Your task to perform on an android device: Check the weather Image 0: 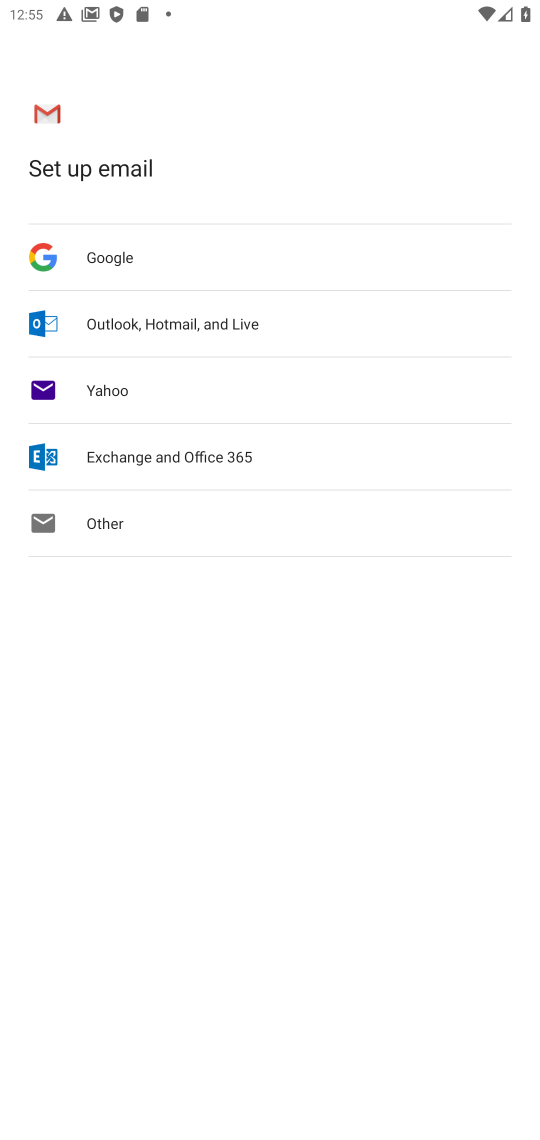
Step 0: press home button
Your task to perform on an android device: Check the weather Image 1: 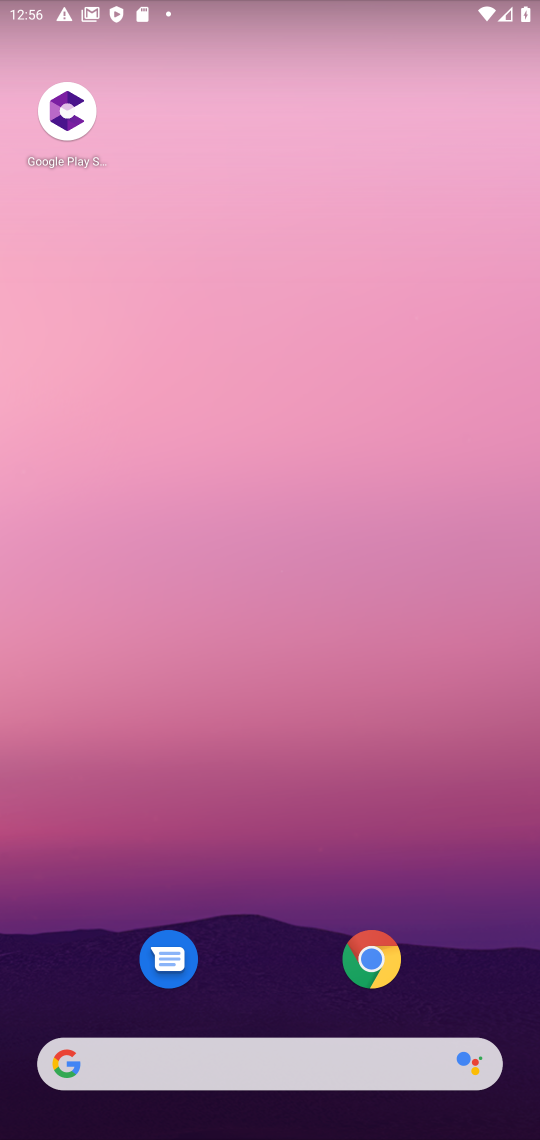
Step 1: click (220, 1073)
Your task to perform on an android device: Check the weather Image 2: 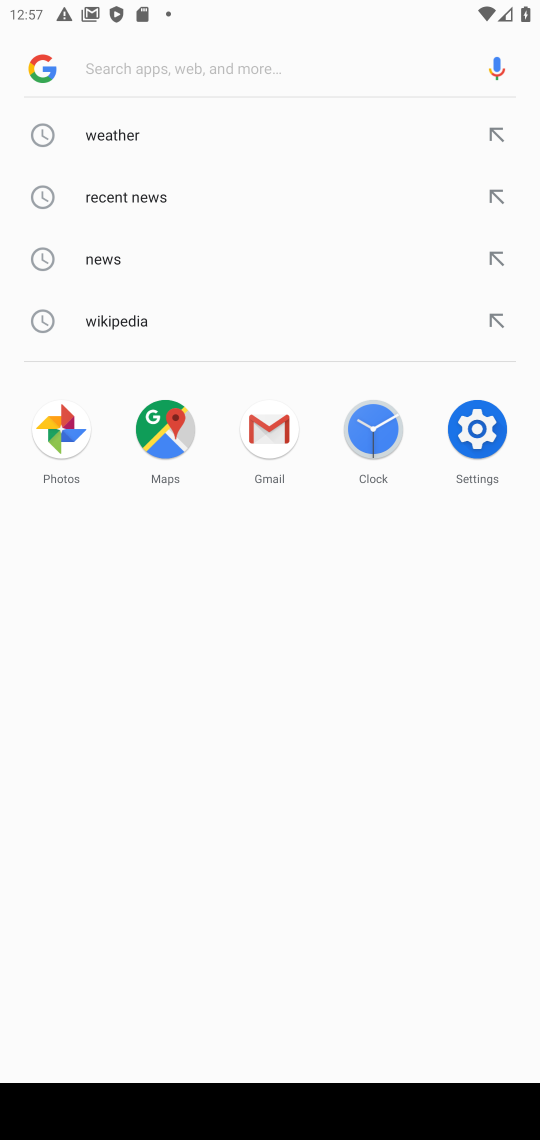
Step 2: type "check the weather"
Your task to perform on an android device: Check the weather Image 3: 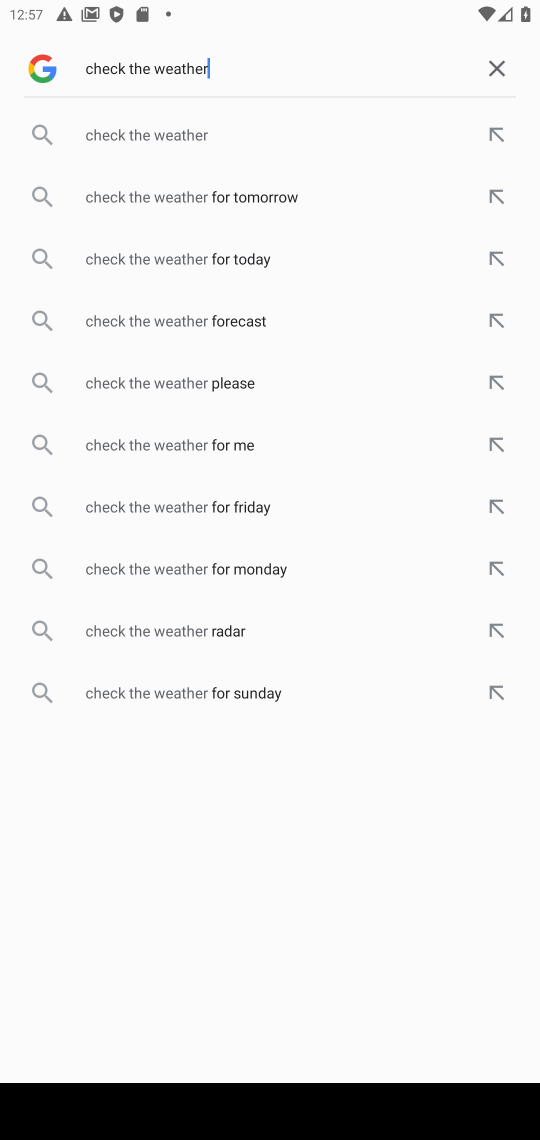
Step 3: click (230, 128)
Your task to perform on an android device: Check the weather Image 4: 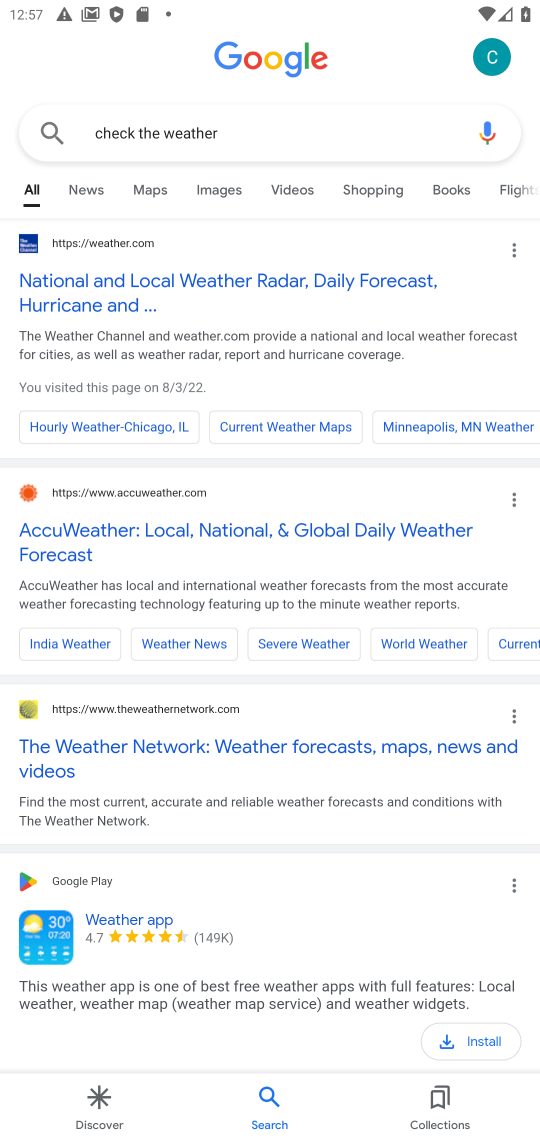
Step 4: task complete